Your task to perform on an android device: Show me recent news Image 0: 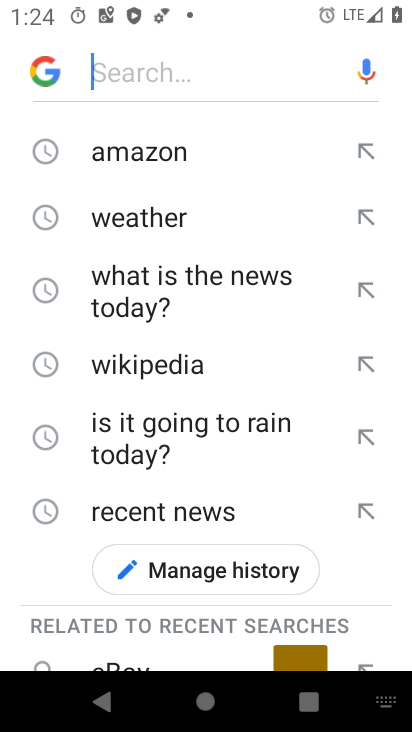
Step 0: press home button
Your task to perform on an android device: Show me recent news Image 1: 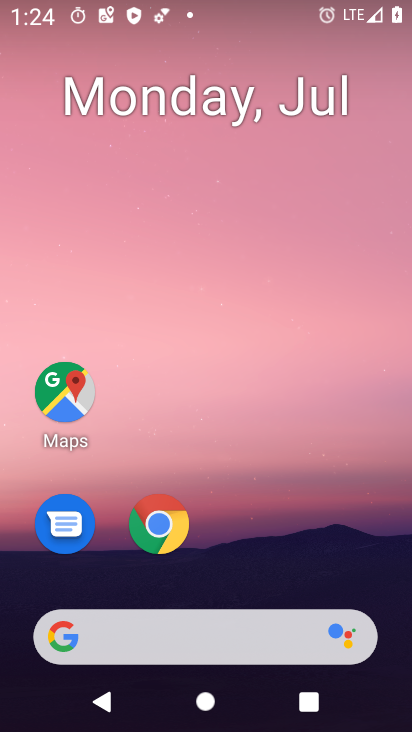
Step 1: click (64, 637)
Your task to perform on an android device: Show me recent news Image 2: 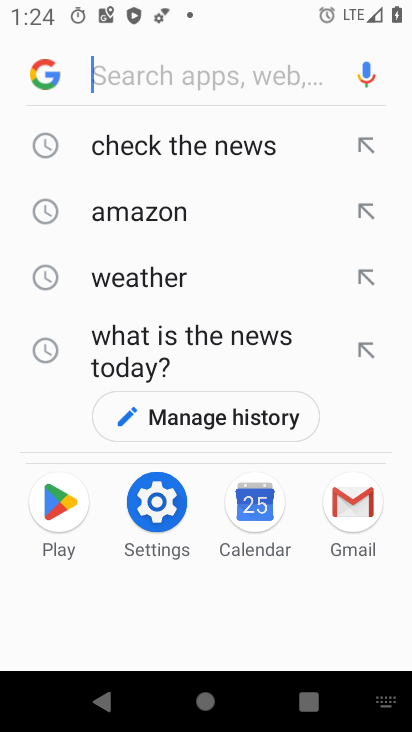
Step 2: type "recent news"
Your task to perform on an android device: Show me recent news Image 3: 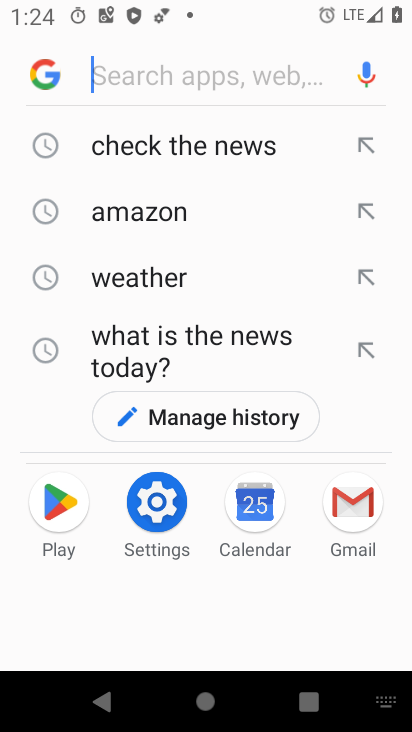
Step 3: click (162, 74)
Your task to perform on an android device: Show me recent news Image 4: 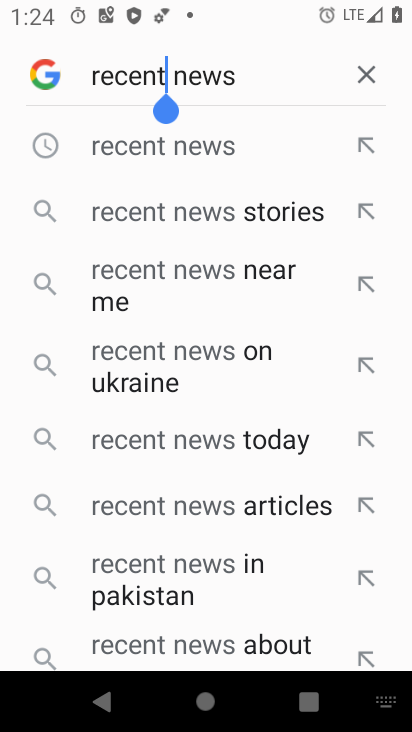
Step 4: click (173, 75)
Your task to perform on an android device: Show me recent news Image 5: 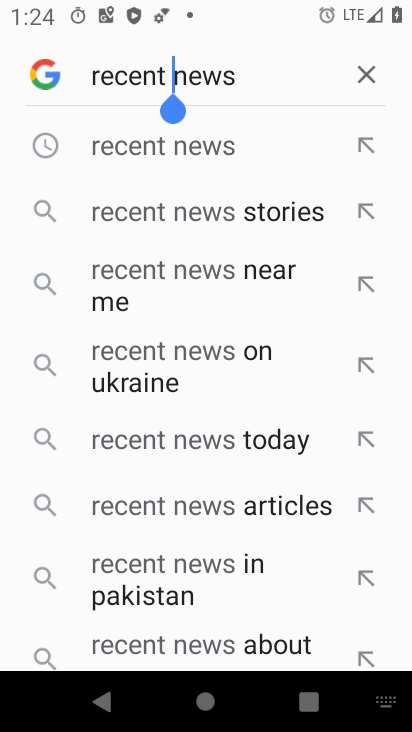
Step 5: click (184, 147)
Your task to perform on an android device: Show me recent news Image 6: 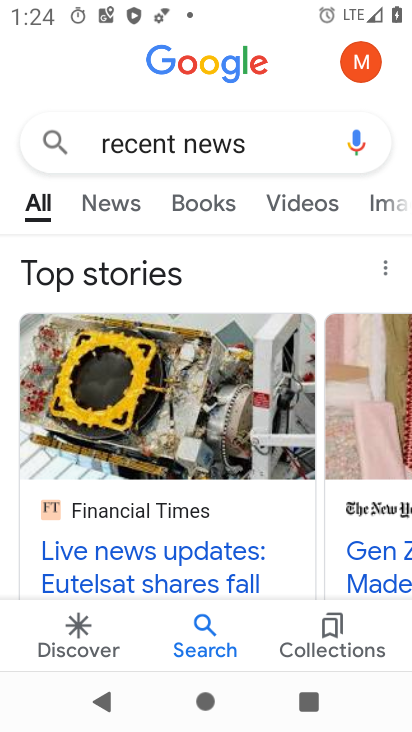
Step 6: task complete